Your task to perform on an android device: Go to Maps Image 0: 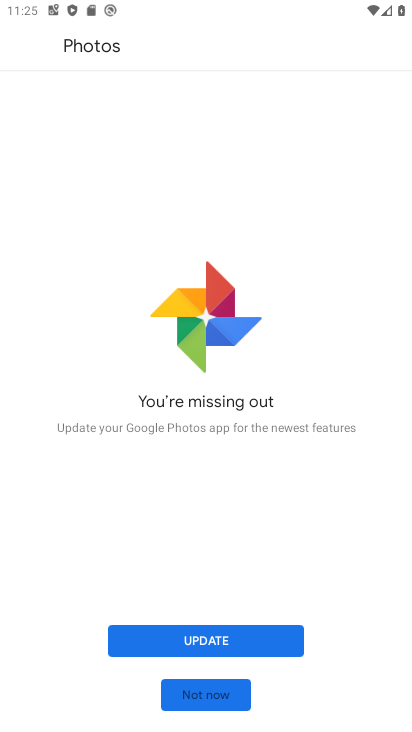
Step 0: press home button
Your task to perform on an android device: Go to Maps Image 1: 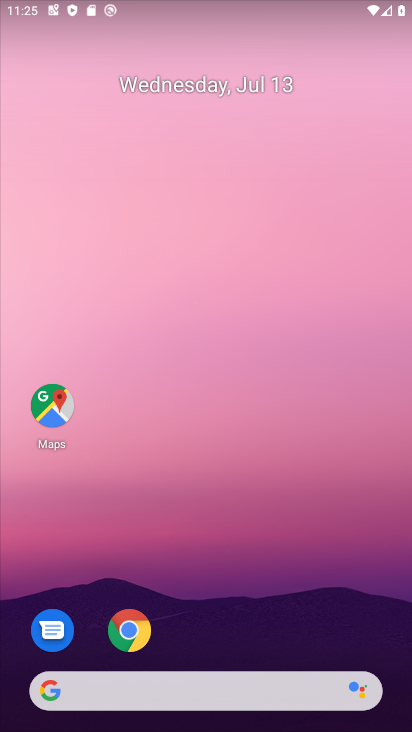
Step 1: drag from (345, 588) to (409, 79)
Your task to perform on an android device: Go to Maps Image 2: 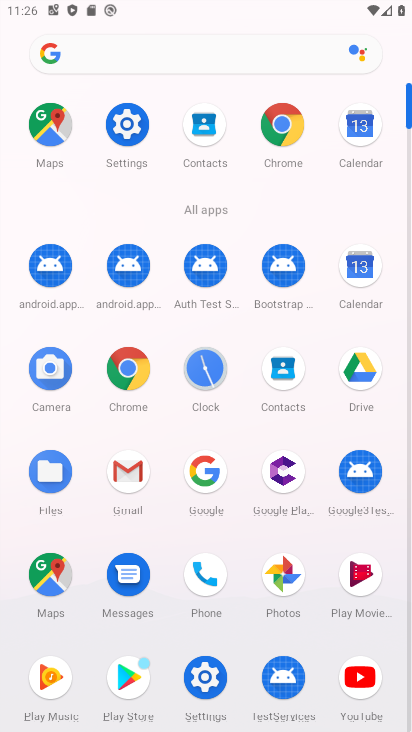
Step 2: click (51, 583)
Your task to perform on an android device: Go to Maps Image 3: 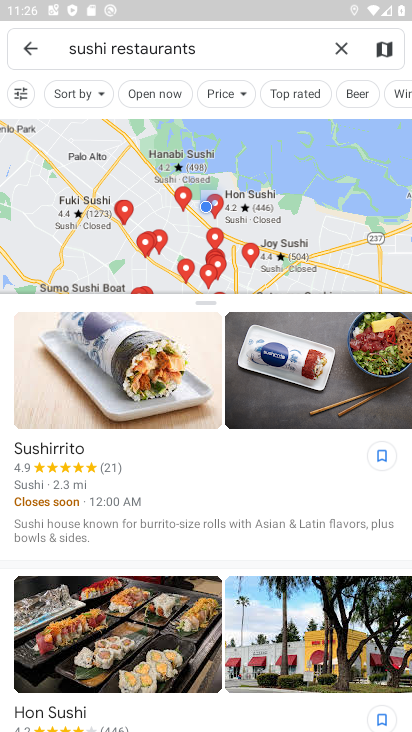
Step 3: task complete